Your task to perform on an android device: Open privacy settings Image 0: 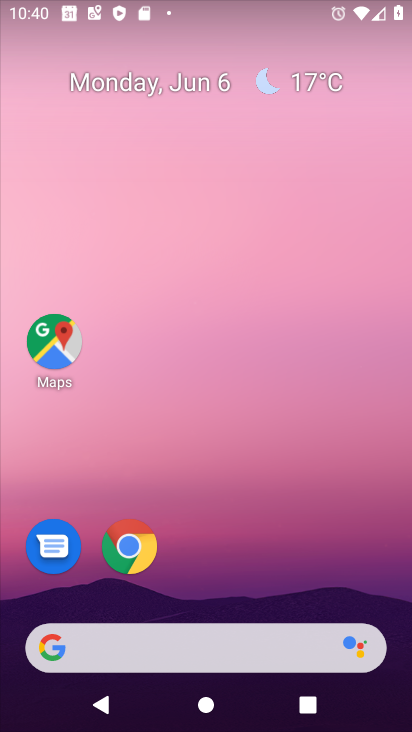
Step 0: drag from (206, 598) to (338, 77)
Your task to perform on an android device: Open privacy settings Image 1: 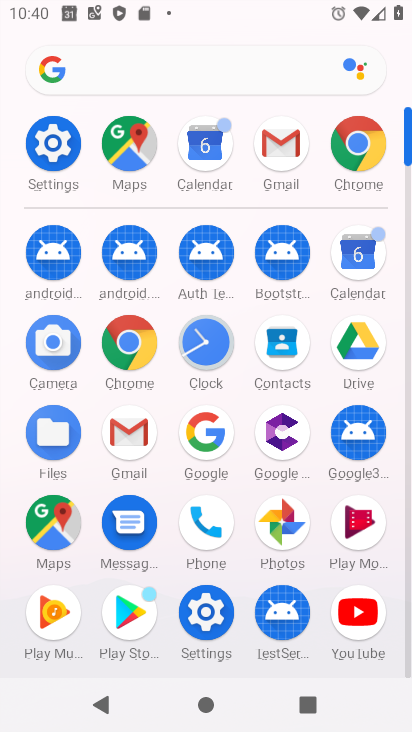
Step 1: click (50, 149)
Your task to perform on an android device: Open privacy settings Image 2: 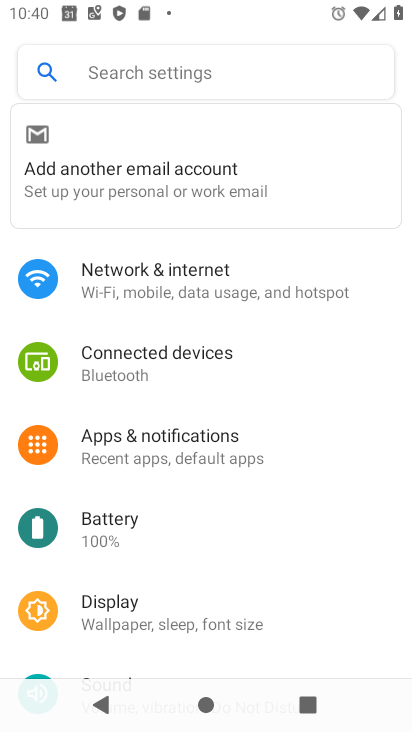
Step 2: drag from (159, 602) to (231, 172)
Your task to perform on an android device: Open privacy settings Image 3: 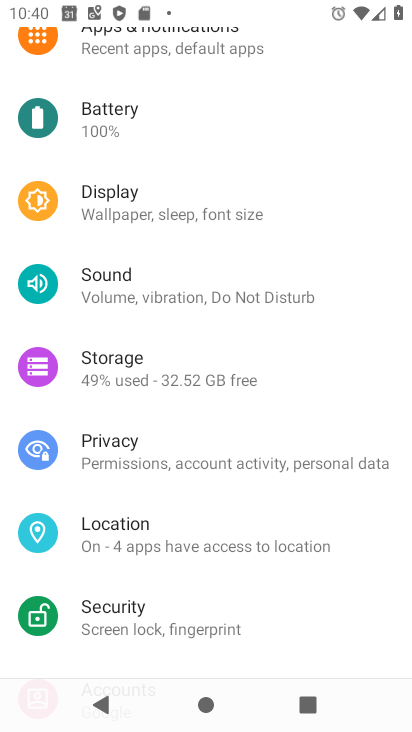
Step 3: click (180, 455)
Your task to perform on an android device: Open privacy settings Image 4: 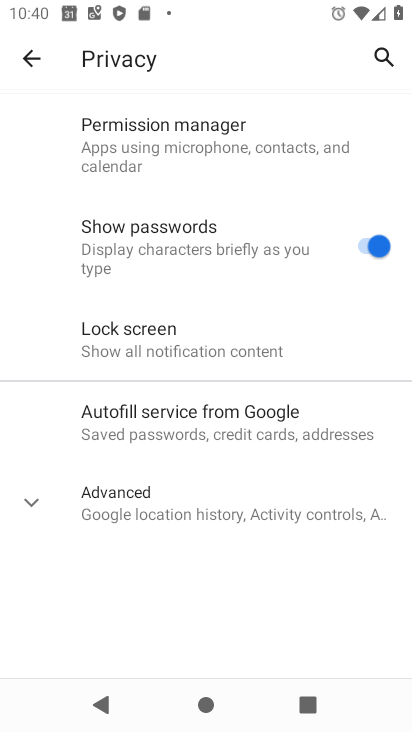
Step 4: task complete